Your task to perform on an android device: Show me recent news Image 0: 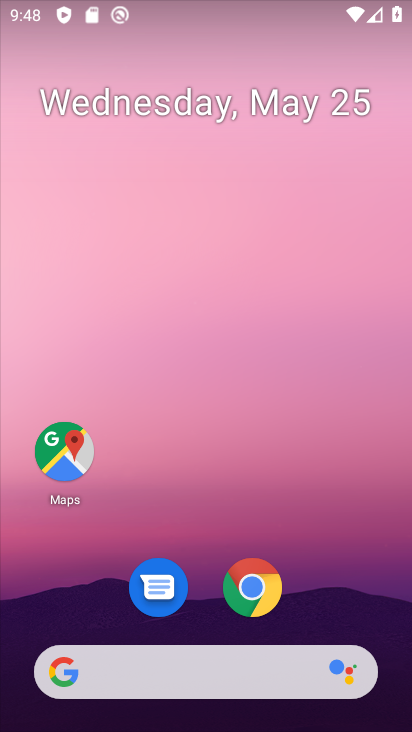
Step 0: click (196, 663)
Your task to perform on an android device: Show me recent news Image 1: 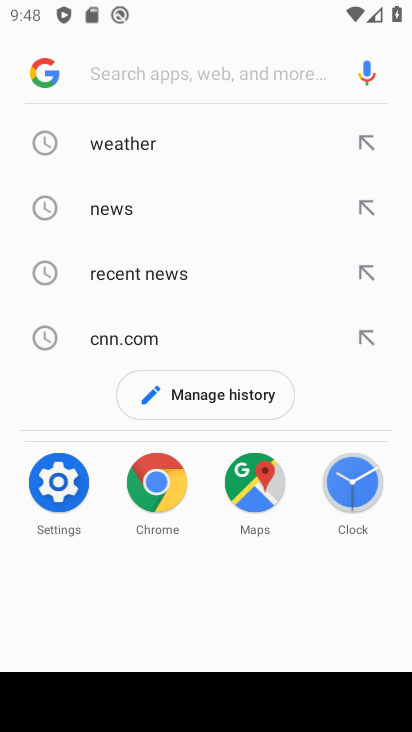
Step 1: click (145, 277)
Your task to perform on an android device: Show me recent news Image 2: 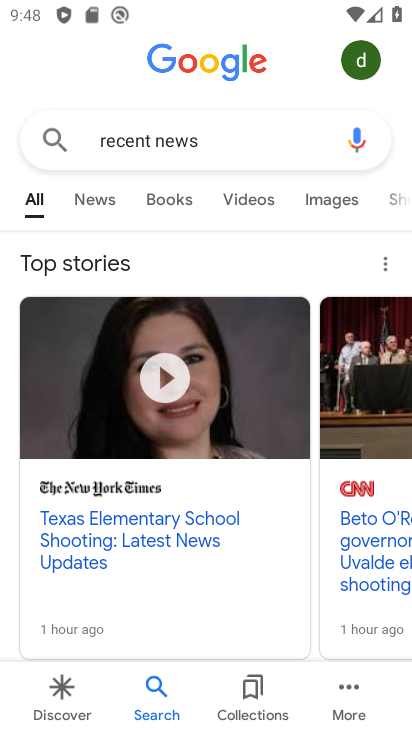
Step 2: task complete